Your task to perform on an android device: Open eBay Image 0: 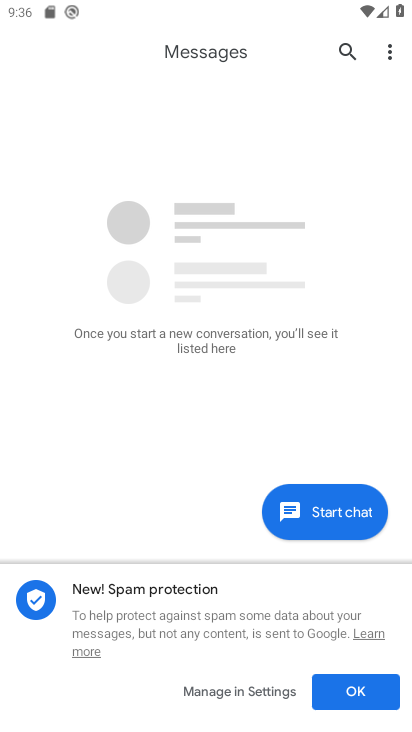
Step 0: press home button
Your task to perform on an android device: Open eBay Image 1: 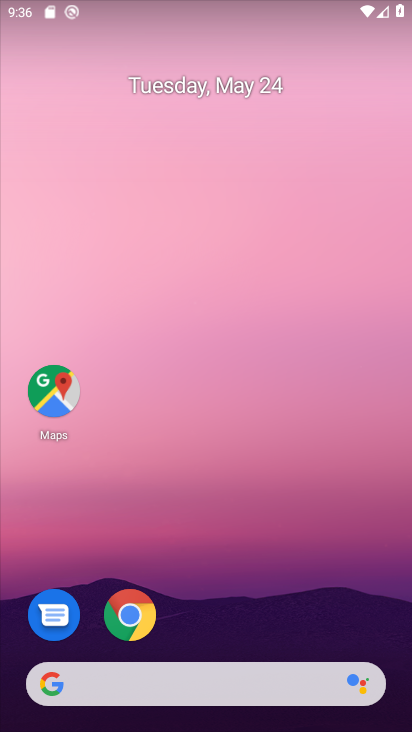
Step 1: drag from (370, 615) to (378, 216)
Your task to perform on an android device: Open eBay Image 2: 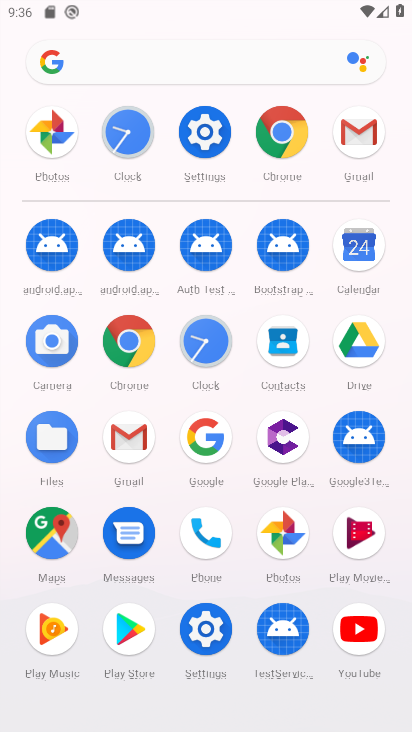
Step 2: click (145, 352)
Your task to perform on an android device: Open eBay Image 3: 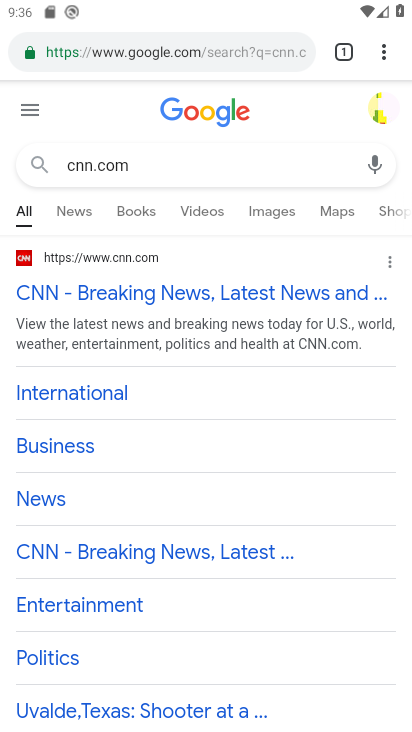
Step 3: click (229, 53)
Your task to perform on an android device: Open eBay Image 4: 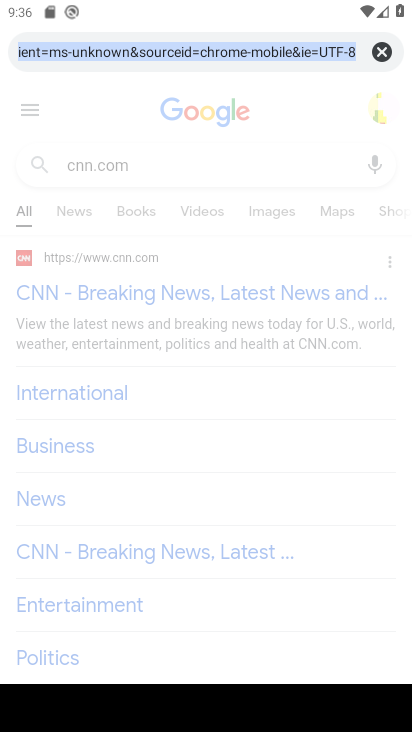
Step 4: click (379, 55)
Your task to perform on an android device: Open eBay Image 5: 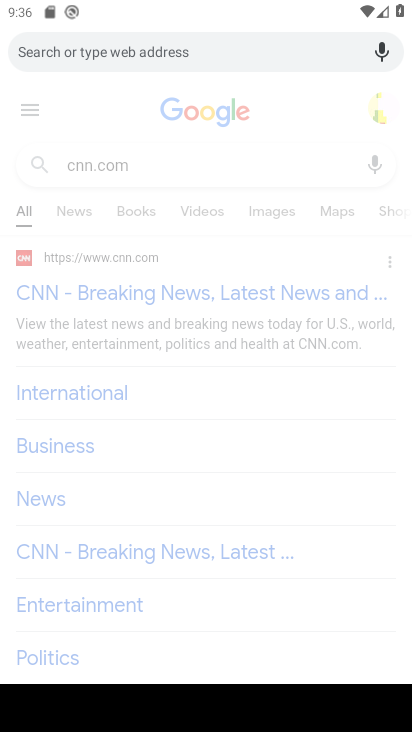
Step 5: type "ebay"
Your task to perform on an android device: Open eBay Image 6: 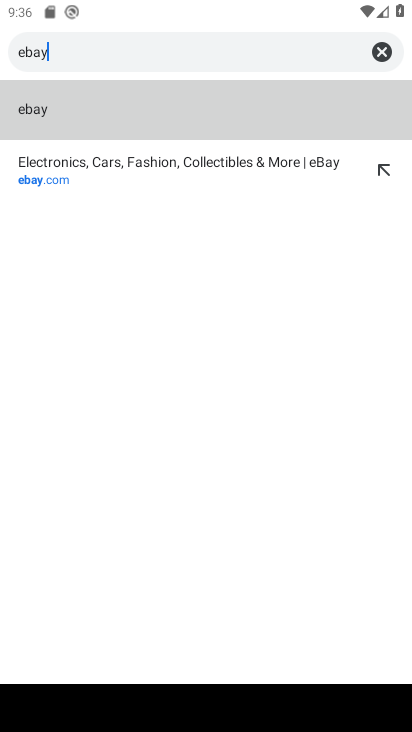
Step 6: click (97, 111)
Your task to perform on an android device: Open eBay Image 7: 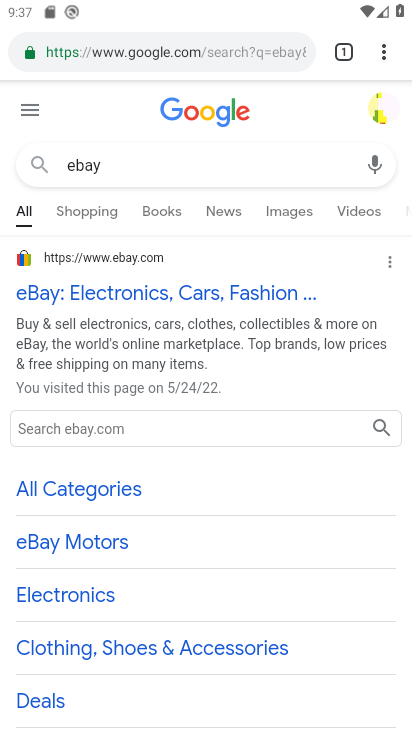
Step 7: task complete